Your task to perform on an android device: open app "McDonald's" (install if not already installed) and go to login screen Image 0: 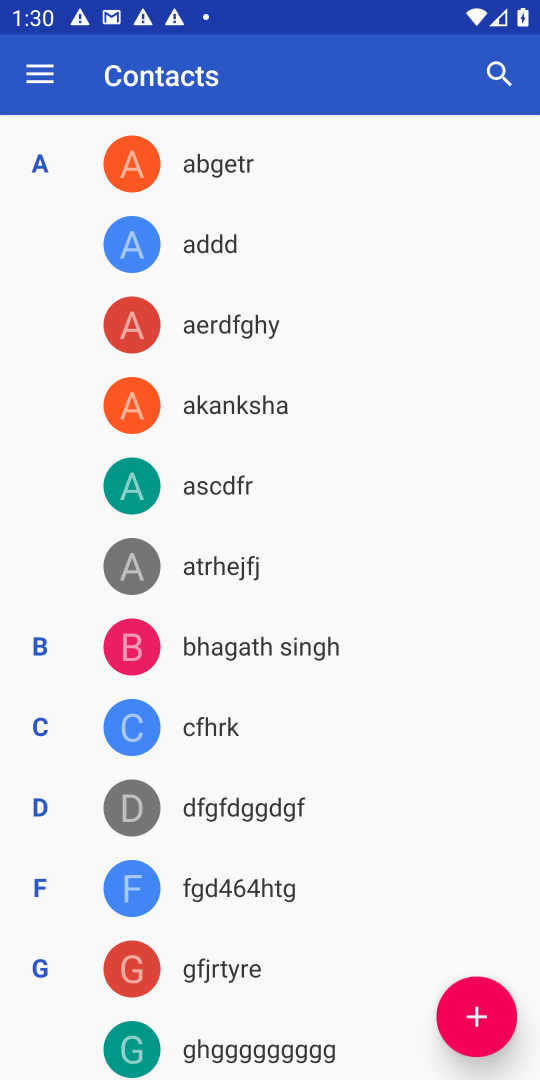
Step 0: press home button
Your task to perform on an android device: open app "McDonald's" (install if not already installed) and go to login screen Image 1: 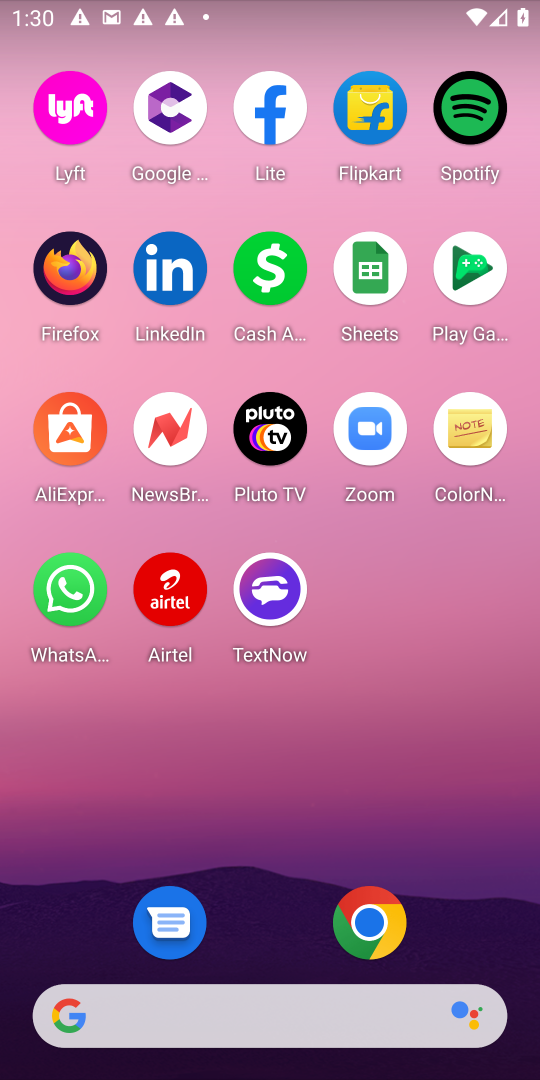
Step 1: drag from (257, 935) to (251, 250)
Your task to perform on an android device: open app "McDonald's" (install if not already installed) and go to login screen Image 2: 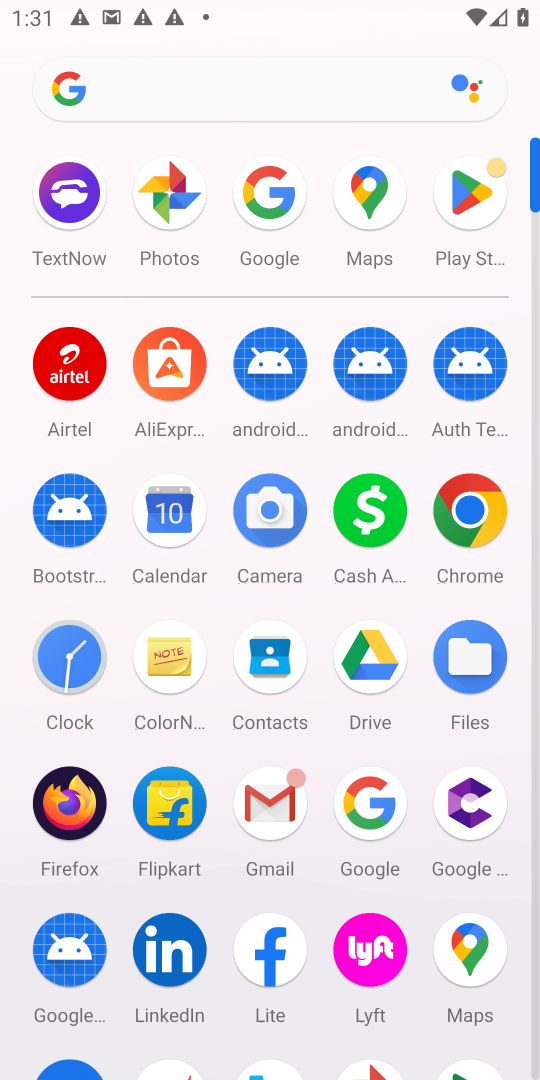
Step 2: press home button
Your task to perform on an android device: open app "McDonald's" (install if not already installed) and go to login screen Image 3: 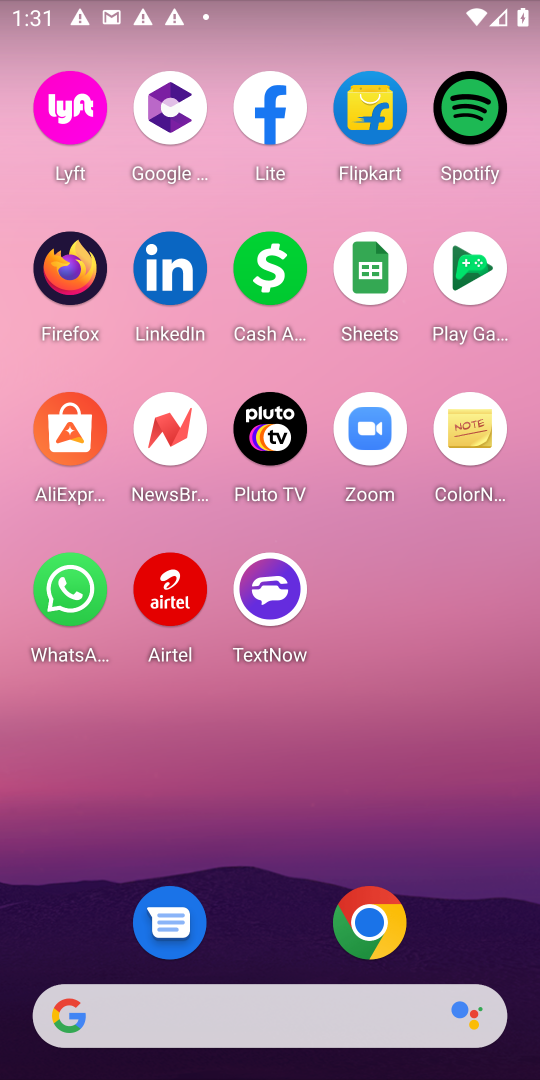
Step 3: drag from (246, 847) to (236, 235)
Your task to perform on an android device: open app "McDonald's" (install if not already installed) and go to login screen Image 4: 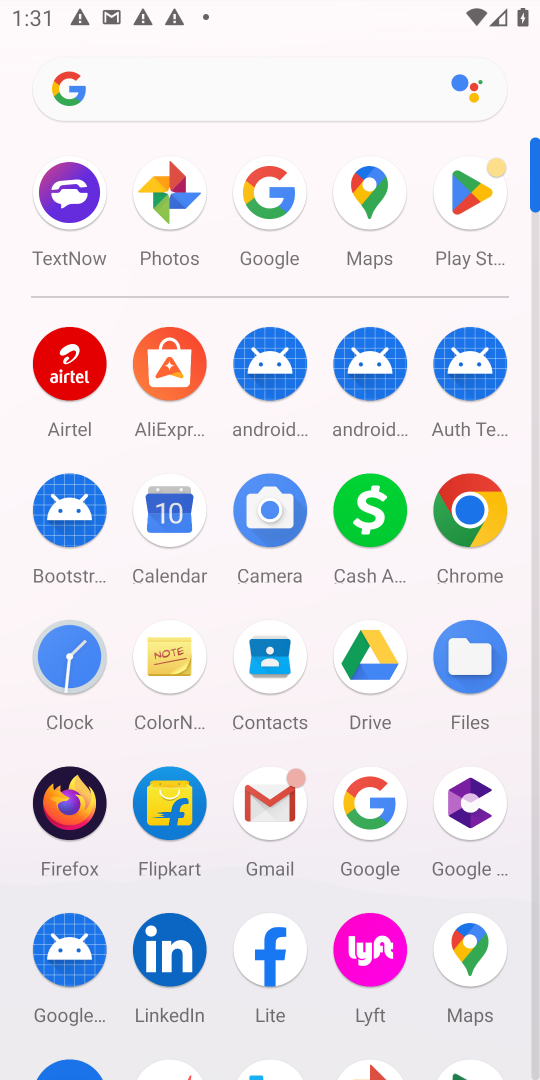
Step 4: click (498, 173)
Your task to perform on an android device: open app "McDonald's" (install if not already installed) and go to login screen Image 5: 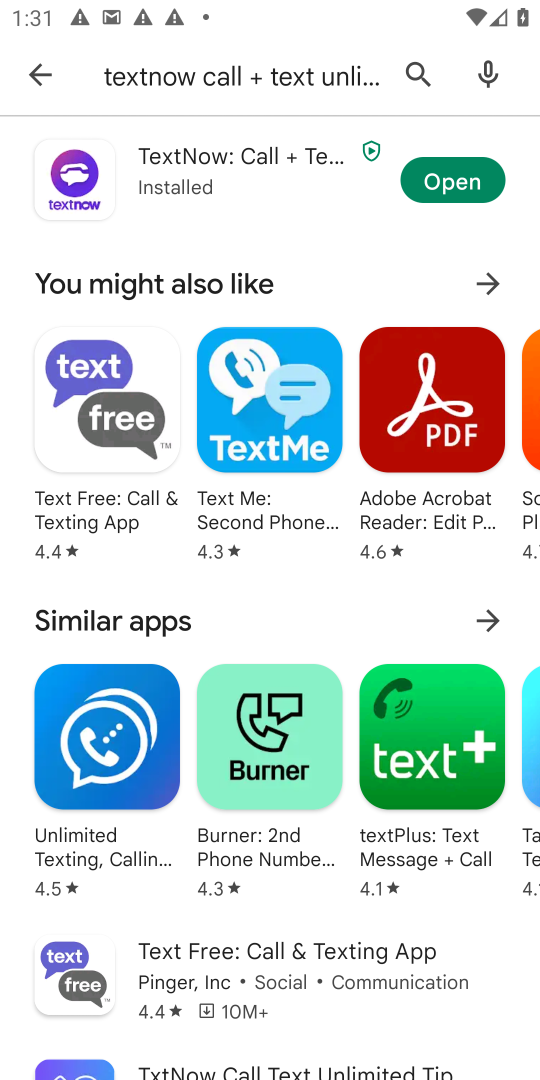
Step 5: click (39, 66)
Your task to perform on an android device: open app "McDonald's" (install if not already installed) and go to login screen Image 6: 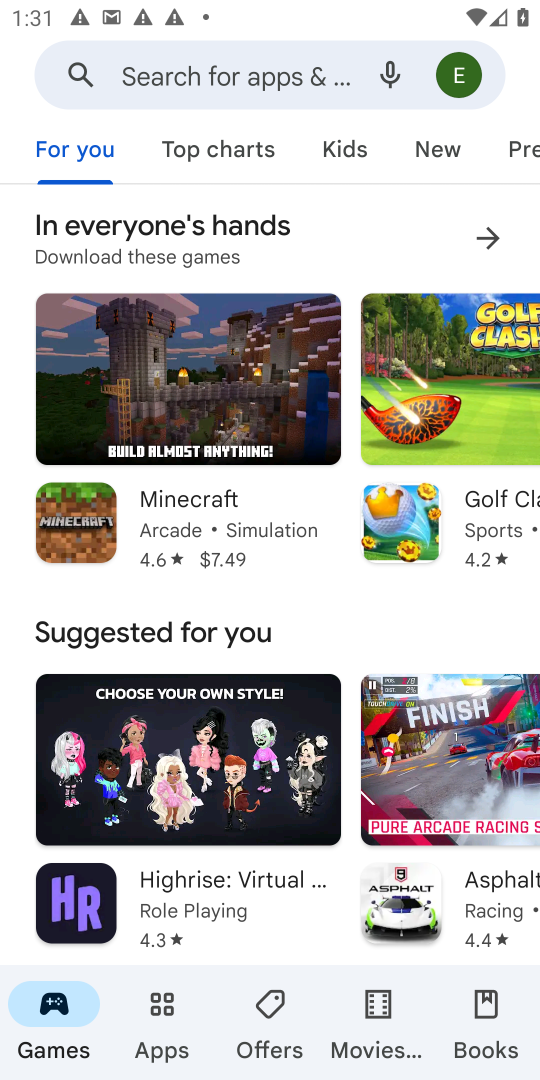
Step 6: click (158, 79)
Your task to perform on an android device: open app "McDonald's" (install if not already installed) and go to login screen Image 7: 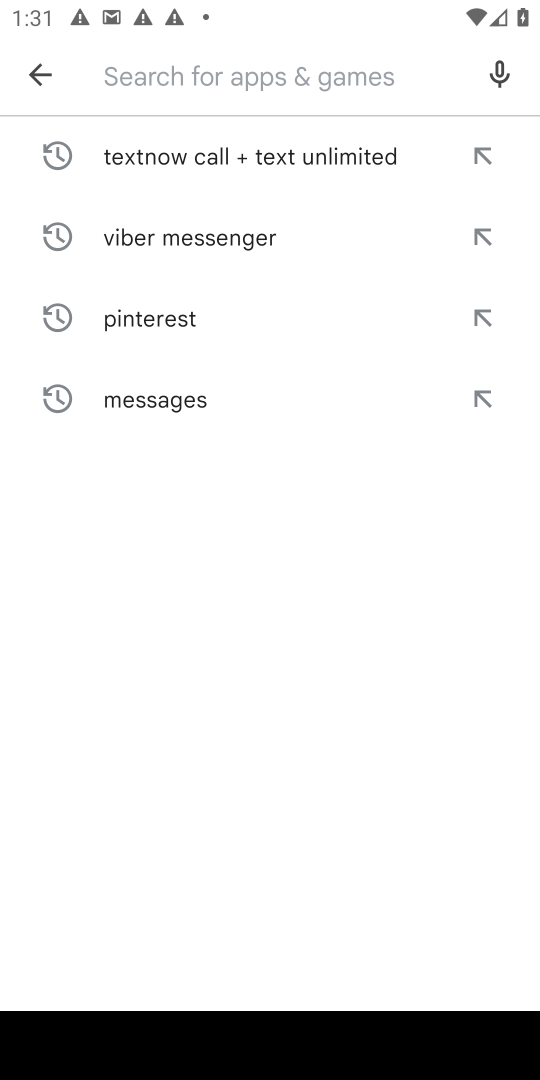
Step 7: type "McDonald's"
Your task to perform on an android device: open app "McDonald's" (install if not already installed) and go to login screen Image 8: 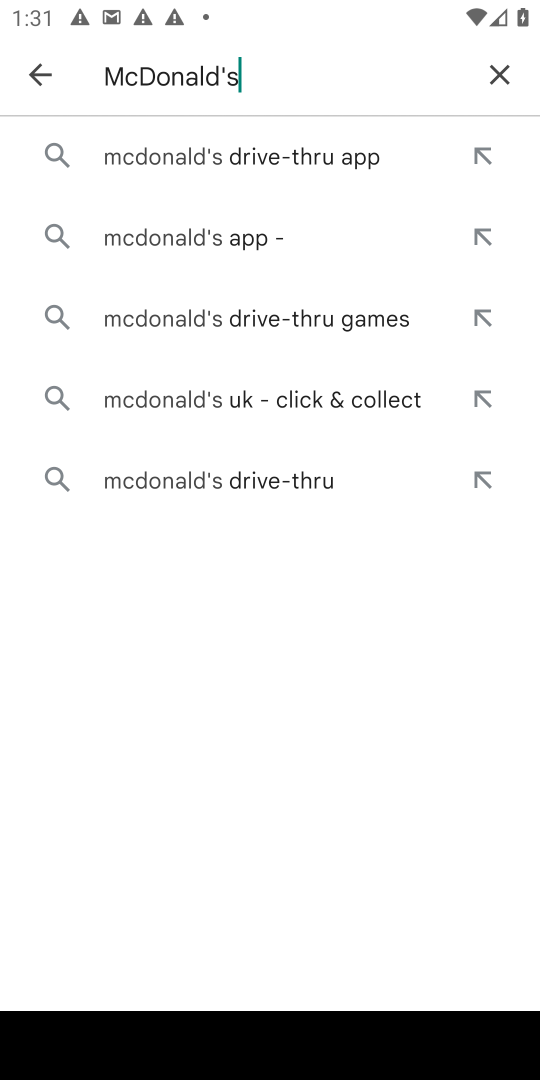
Step 8: click (248, 245)
Your task to perform on an android device: open app "McDonald's" (install if not already installed) and go to login screen Image 9: 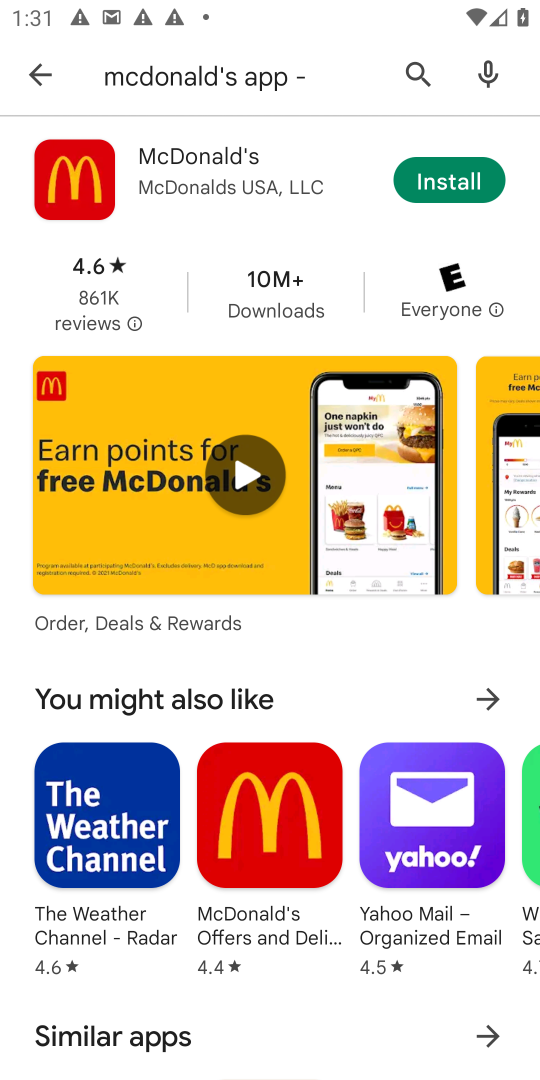
Step 9: click (440, 179)
Your task to perform on an android device: open app "McDonald's" (install if not already installed) and go to login screen Image 10: 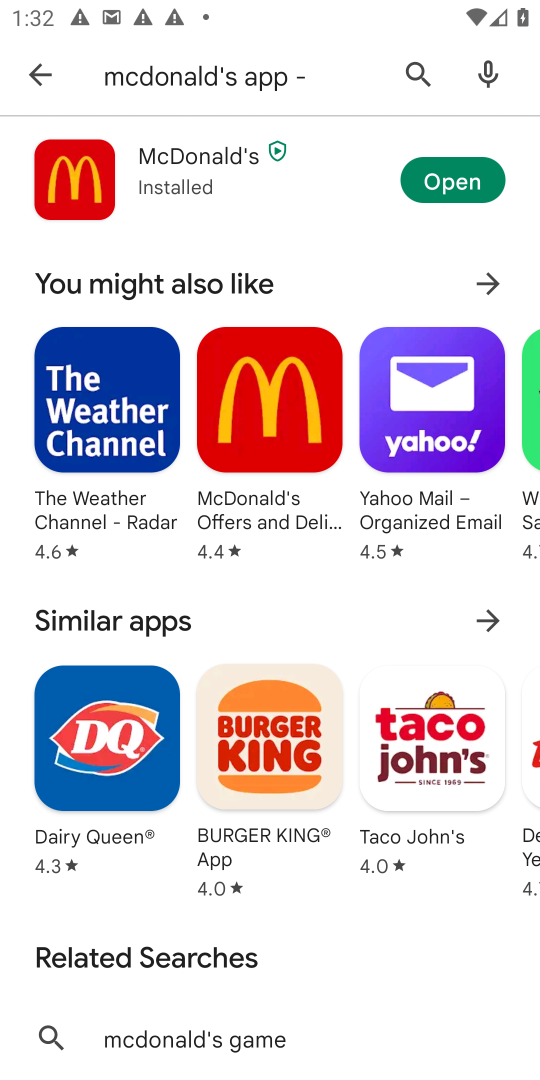
Step 10: click (448, 178)
Your task to perform on an android device: open app "McDonald's" (install if not already installed) and go to login screen Image 11: 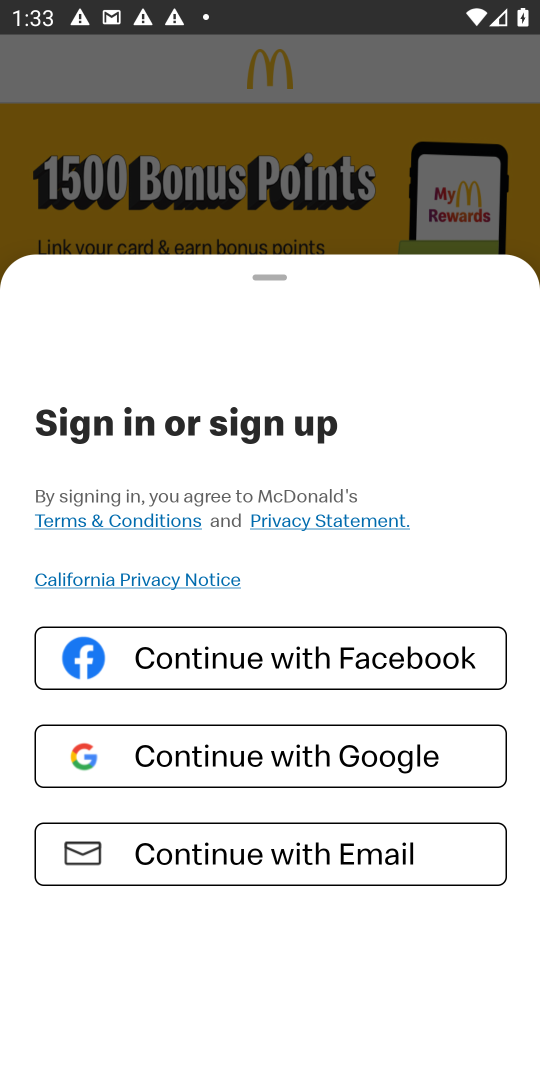
Step 11: task complete